Your task to perform on an android device: Open the calendar and show me this week's events? Image 0: 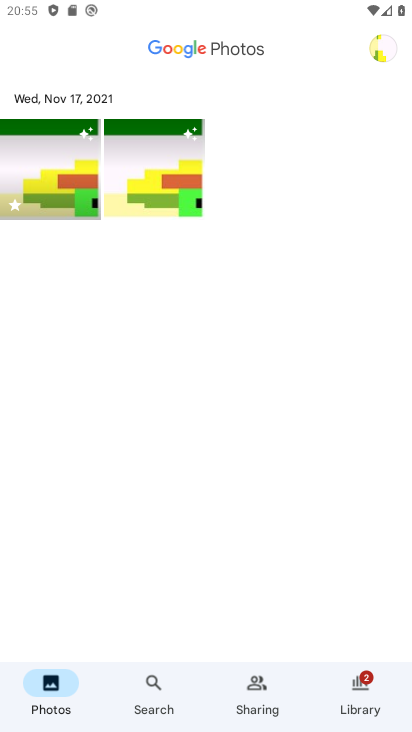
Step 0: press home button
Your task to perform on an android device: Open the calendar and show me this week's events? Image 1: 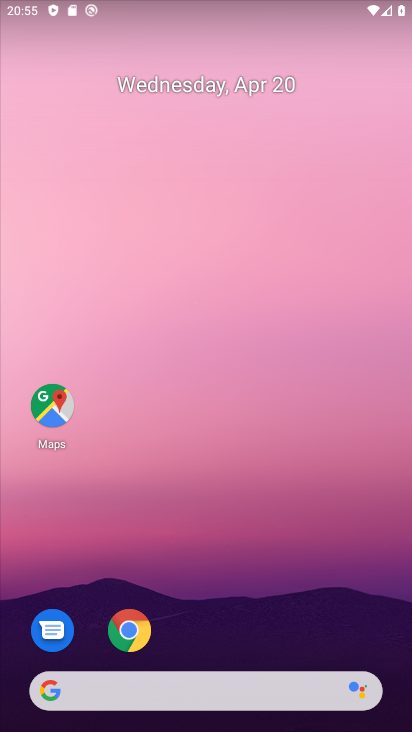
Step 1: drag from (265, 596) to (272, 132)
Your task to perform on an android device: Open the calendar and show me this week's events? Image 2: 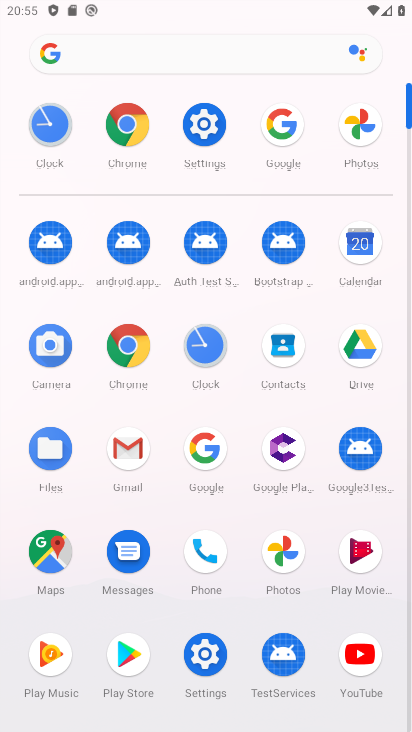
Step 2: click (352, 238)
Your task to perform on an android device: Open the calendar and show me this week's events? Image 3: 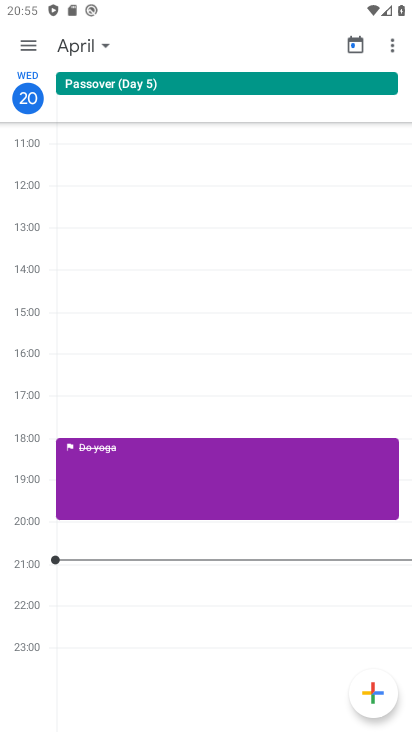
Step 3: click (90, 39)
Your task to perform on an android device: Open the calendar and show me this week's events? Image 4: 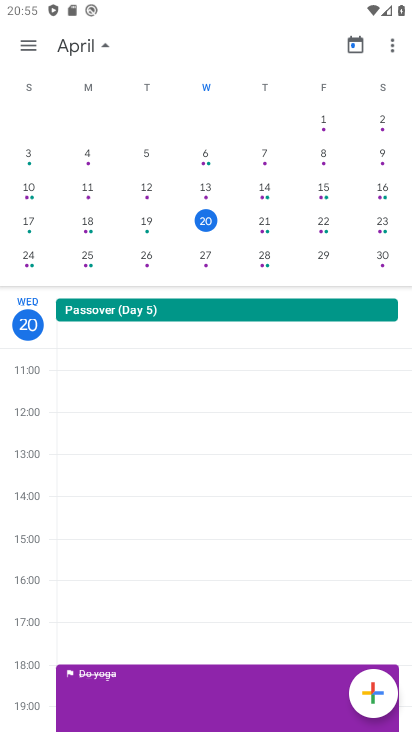
Step 4: click (93, 44)
Your task to perform on an android device: Open the calendar and show me this week's events? Image 5: 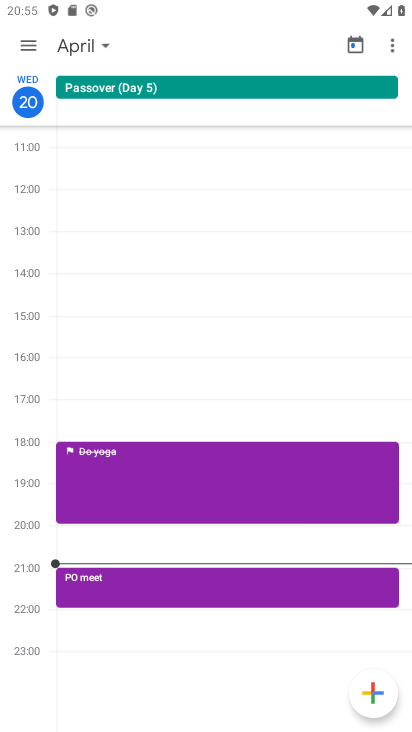
Step 5: click (26, 45)
Your task to perform on an android device: Open the calendar and show me this week's events? Image 6: 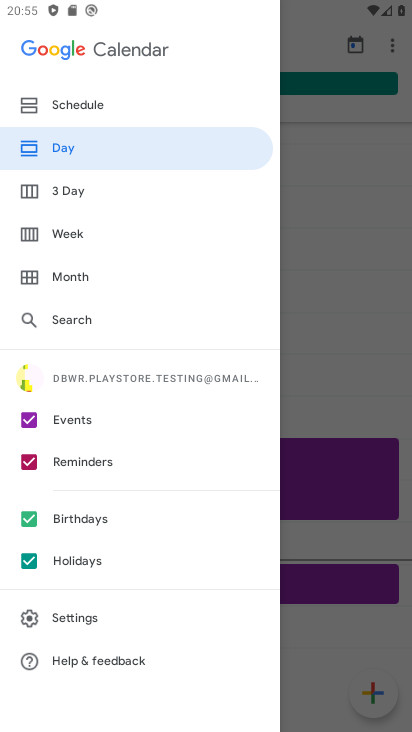
Step 6: click (87, 234)
Your task to perform on an android device: Open the calendar and show me this week's events? Image 7: 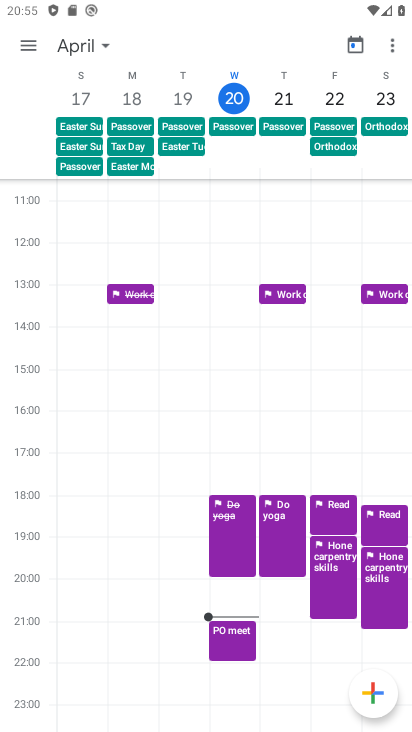
Step 7: click (32, 41)
Your task to perform on an android device: Open the calendar and show me this week's events? Image 8: 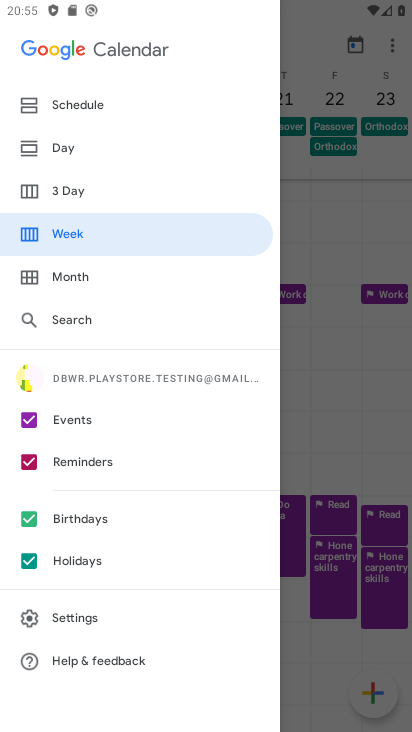
Step 8: click (25, 463)
Your task to perform on an android device: Open the calendar and show me this week's events? Image 9: 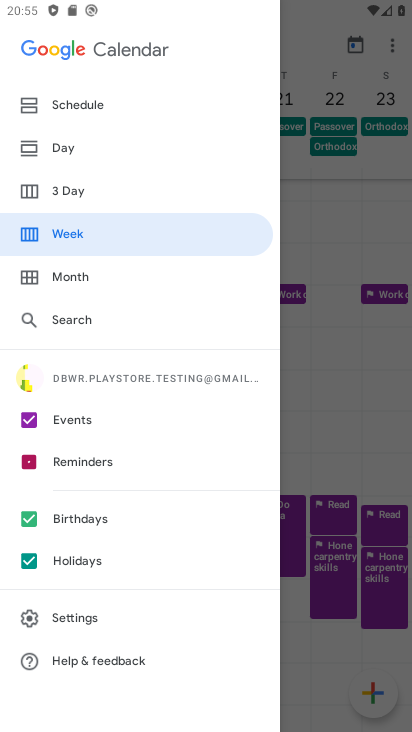
Step 9: click (26, 518)
Your task to perform on an android device: Open the calendar and show me this week's events? Image 10: 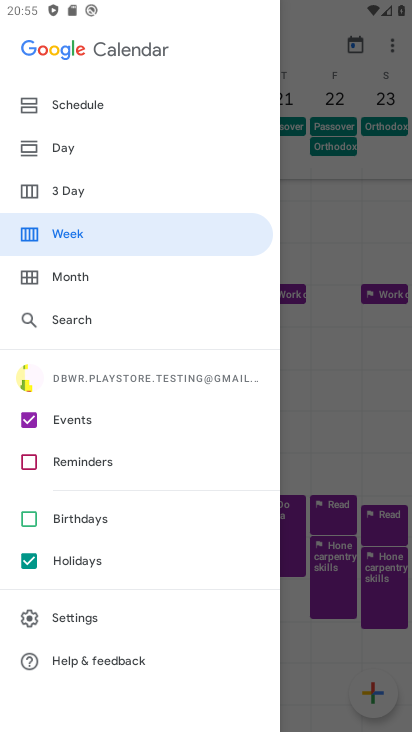
Step 10: click (27, 568)
Your task to perform on an android device: Open the calendar and show me this week's events? Image 11: 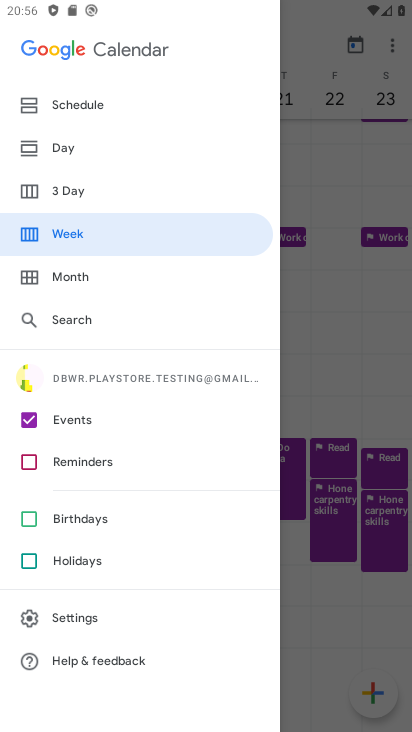
Step 11: click (316, 192)
Your task to perform on an android device: Open the calendar and show me this week's events? Image 12: 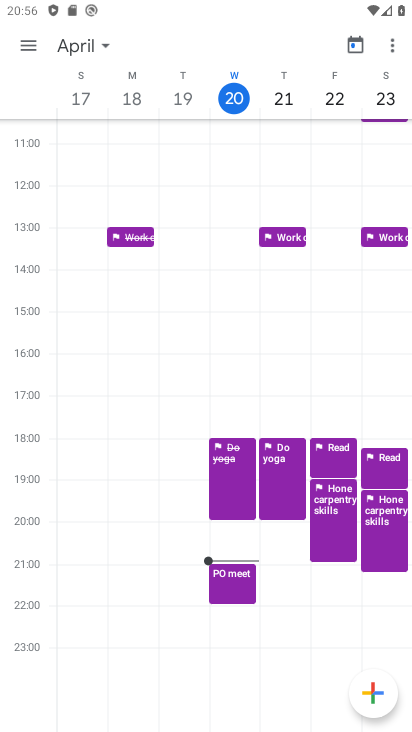
Step 12: task complete